Your task to perform on an android device: Open Chrome and go to settings Image 0: 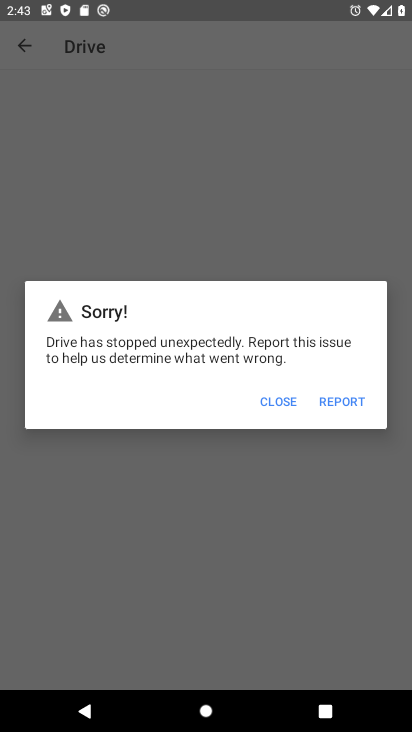
Step 0: press back button
Your task to perform on an android device: Open Chrome and go to settings Image 1: 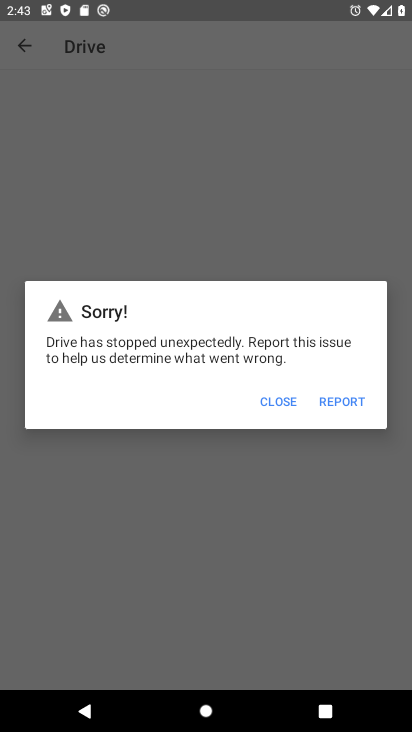
Step 1: press back button
Your task to perform on an android device: Open Chrome and go to settings Image 2: 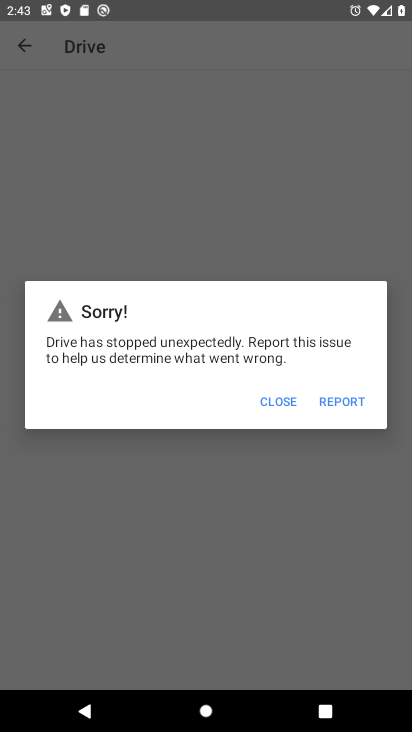
Step 2: press home button
Your task to perform on an android device: Open Chrome and go to settings Image 3: 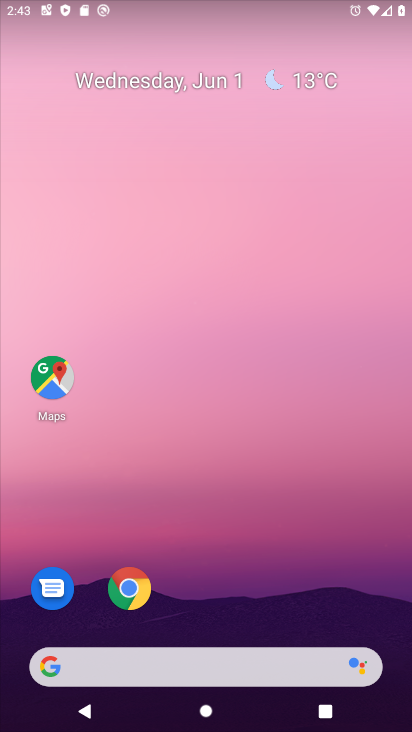
Step 3: click (123, 598)
Your task to perform on an android device: Open Chrome and go to settings Image 4: 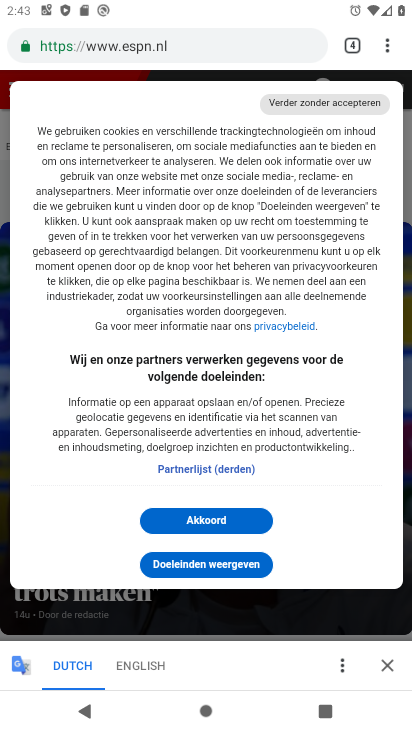
Step 4: task complete